Your task to perform on an android device: change timer sound Image 0: 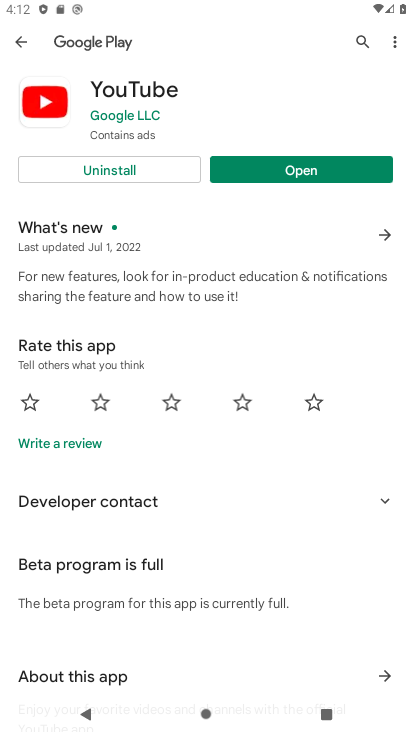
Step 0: press home button
Your task to perform on an android device: change timer sound Image 1: 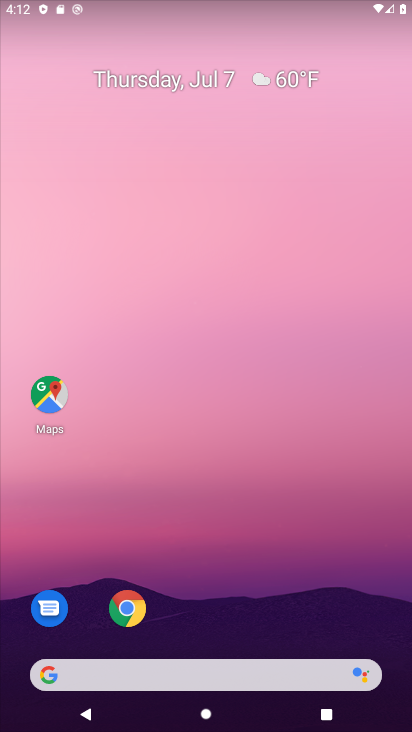
Step 1: drag from (292, 593) to (233, 17)
Your task to perform on an android device: change timer sound Image 2: 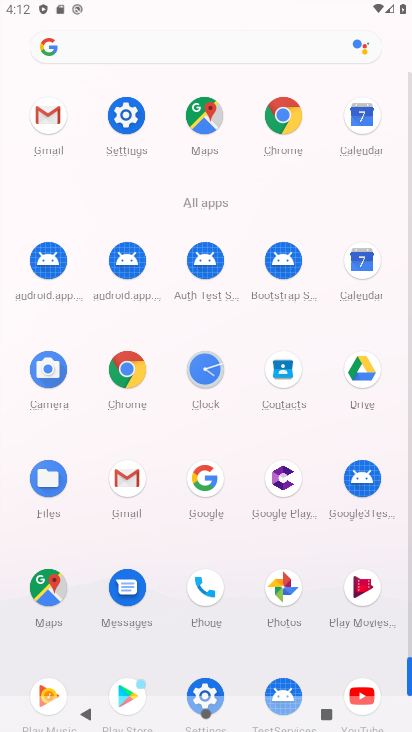
Step 2: click (211, 366)
Your task to perform on an android device: change timer sound Image 3: 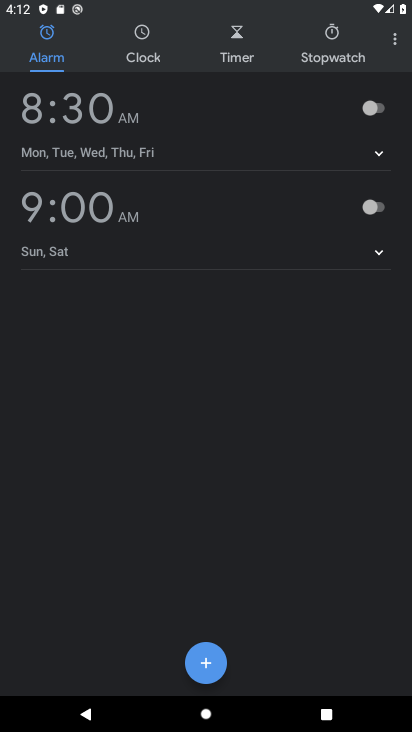
Step 3: click (401, 36)
Your task to perform on an android device: change timer sound Image 4: 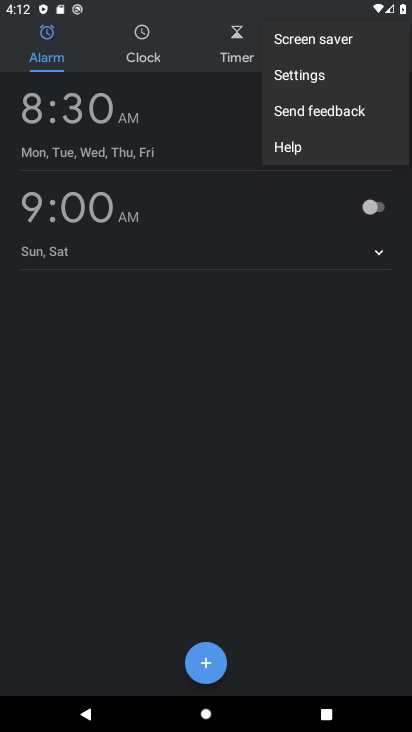
Step 4: click (322, 84)
Your task to perform on an android device: change timer sound Image 5: 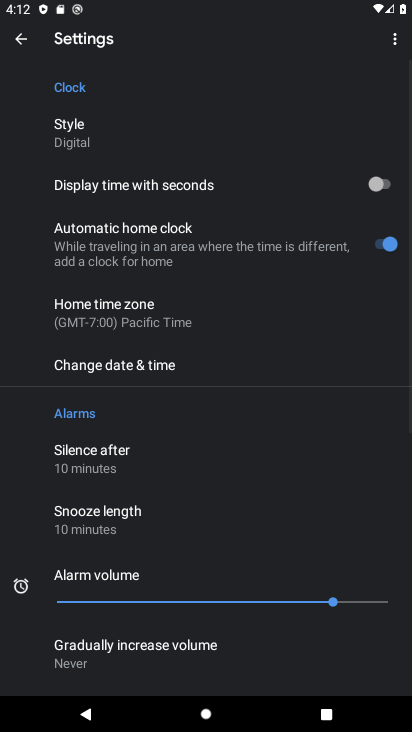
Step 5: drag from (273, 562) to (211, 206)
Your task to perform on an android device: change timer sound Image 6: 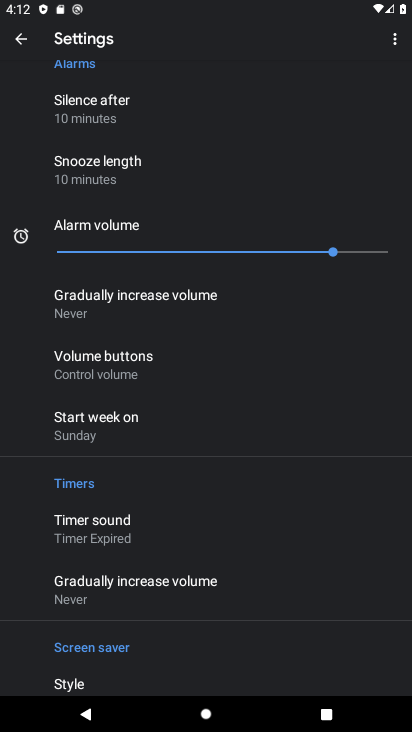
Step 6: click (136, 533)
Your task to perform on an android device: change timer sound Image 7: 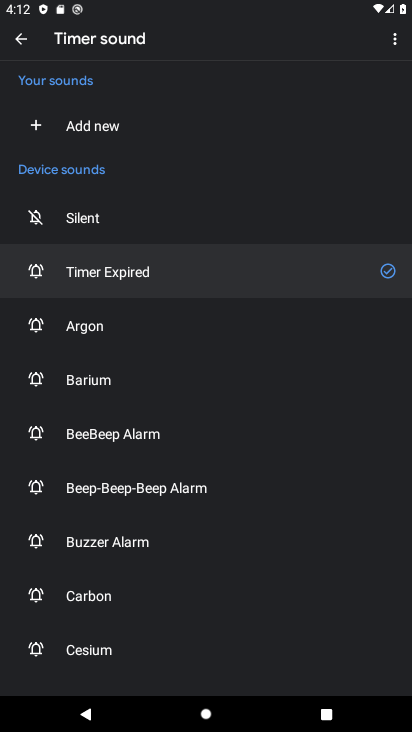
Step 7: click (139, 332)
Your task to perform on an android device: change timer sound Image 8: 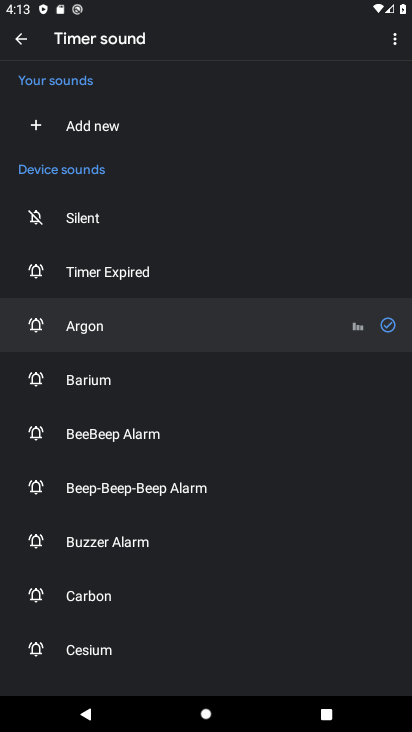
Step 8: task complete